Your task to perform on an android device: Open the calendar app, open the side menu, and click the "Day" option Image 0: 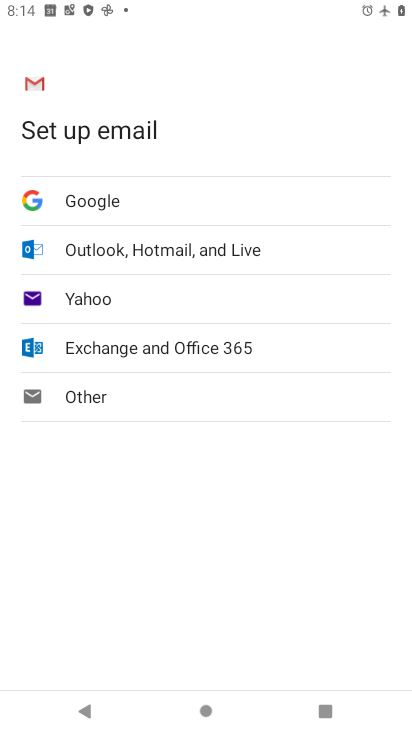
Step 0: press home button
Your task to perform on an android device: Open the calendar app, open the side menu, and click the "Day" option Image 1: 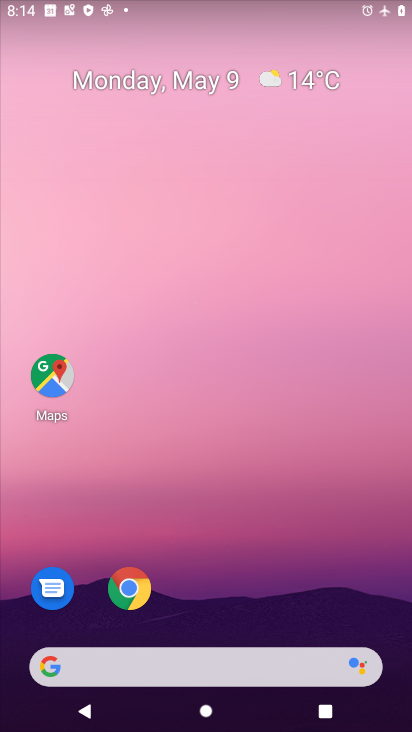
Step 1: drag from (320, 610) to (327, 105)
Your task to perform on an android device: Open the calendar app, open the side menu, and click the "Day" option Image 2: 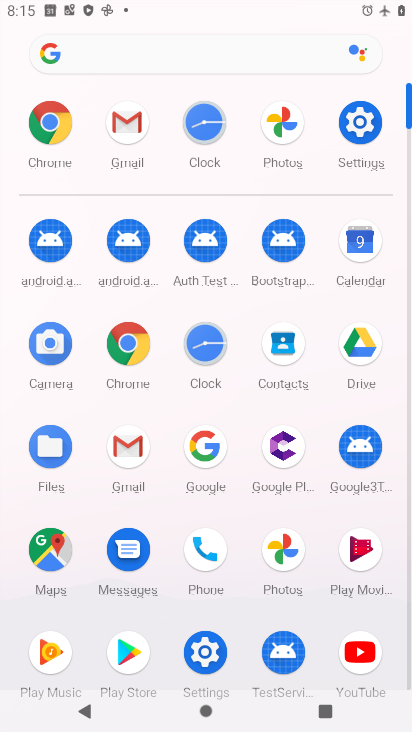
Step 2: click (354, 252)
Your task to perform on an android device: Open the calendar app, open the side menu, and click the "Day" option Image 3: 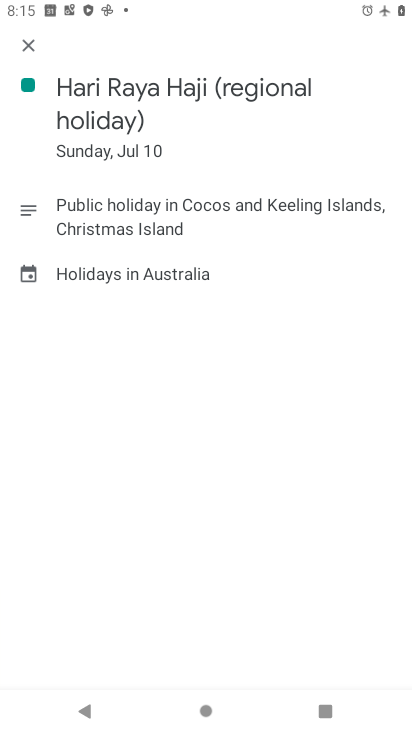
Step 3: press back button
Your task to perform on an android device: Open the calendar app, open the side menu, and click the "Day" option Image 4: 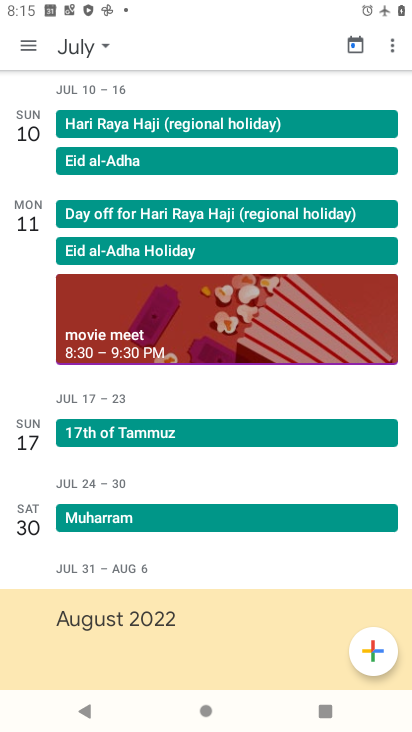
Step 4: click (24, 43)
Your task to perform on an android device: Open the calendar app, open the side menu, and click the "Day" option Image 5: 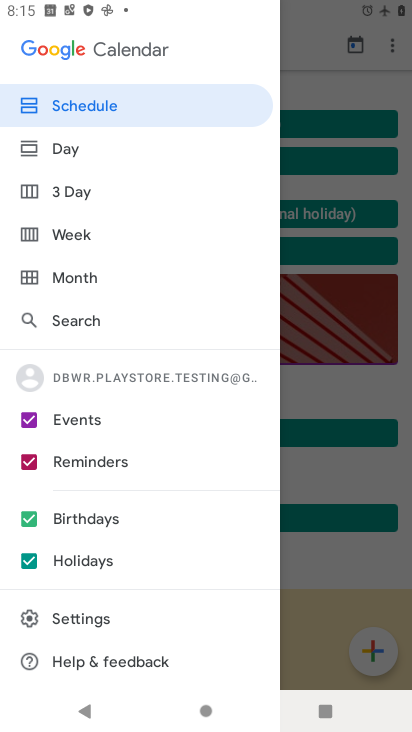
Step 5: click (70, 159)
Your task to perform on an android device: Open the calendar app, open the side menu, and click the "Day" option Image 6: 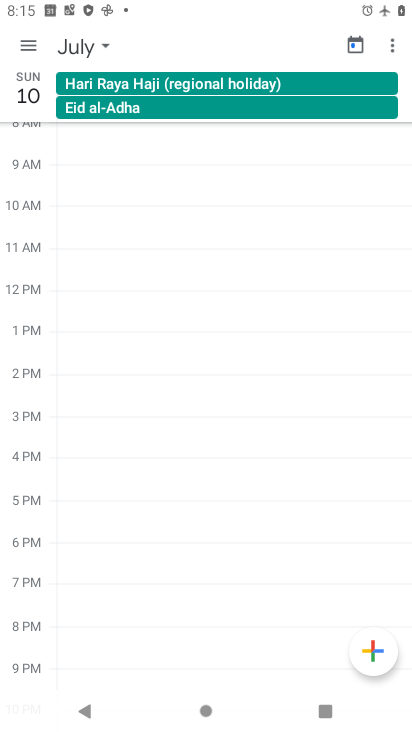
Step 6: task complete